Your task to perform on an android device: toggle priority inbox in the gmail app Image 0: 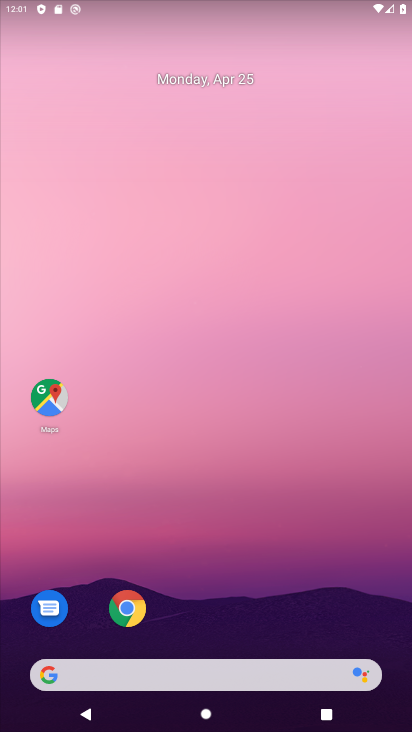
Step 0: drag from (230, 718) to (224, 174)
Your task to perform on an android device: toggle priority inbox in the gmail app Image 1: 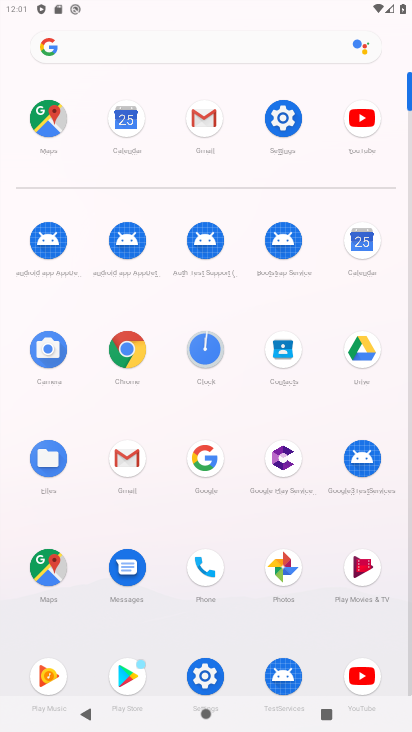
Step 1: click (127, 454)
Your task to perform on an android device: toggle priority inbox in the gmail app Image 2: 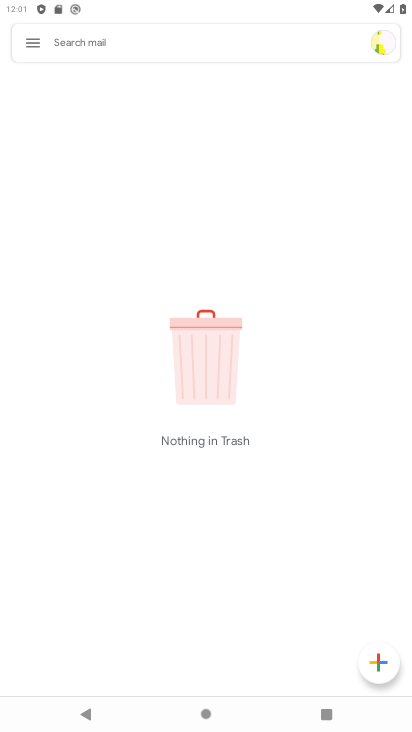
Step 2: click (29, 40)
Your task to perform on an android device: toggle priority inbox in the gmail app Image 3: 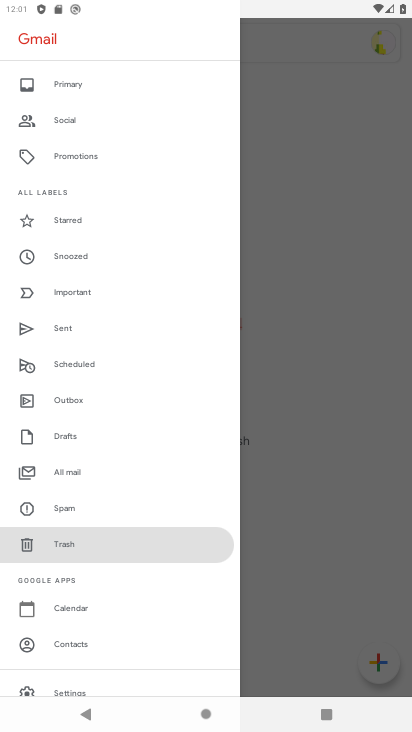
Step 3: click (79, 685)
Your task to perform on an android device: toggle priority inbox in the gmail app Image 4: 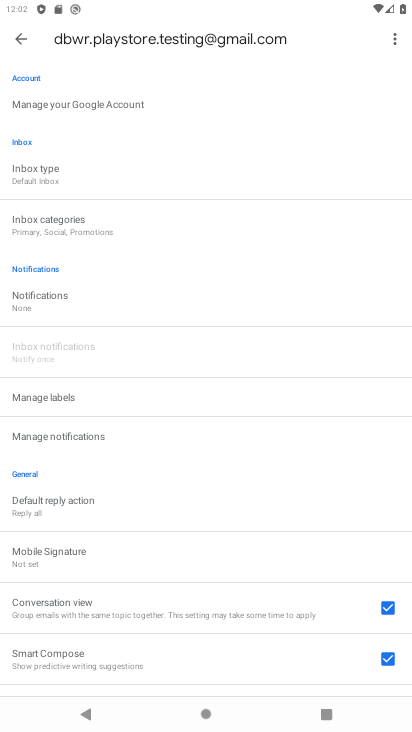
Step 4: click (35, 174)
Your task to perform on an android device: toggle priority inbox in the gmail app Image 5: 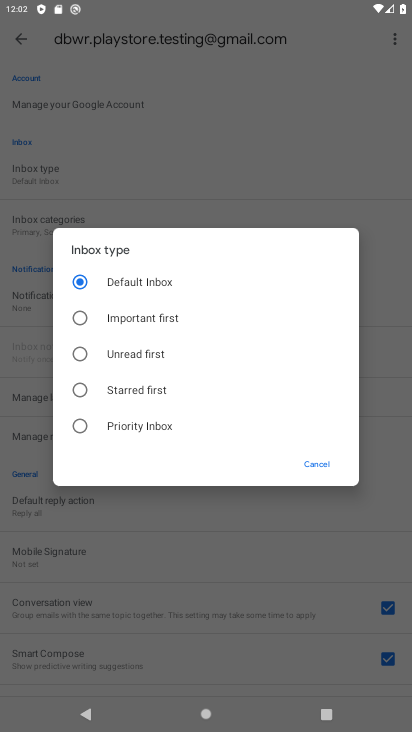
Step 5: click (79, 320)
Your task to perform on an android device: toggle priority inbox in the gmail app Image 6: 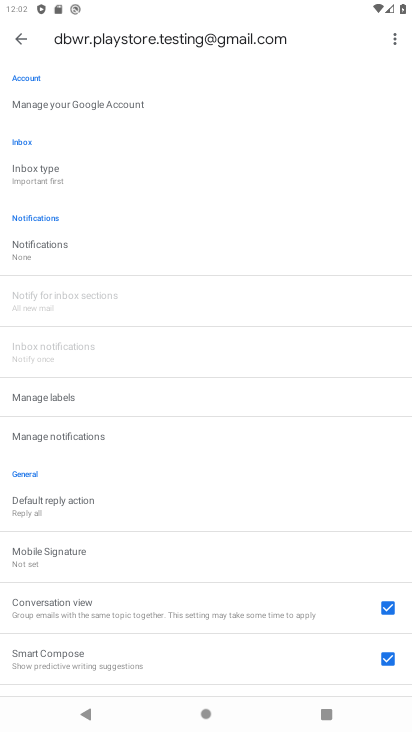
Step 6: task complete